Your task to perform on an android device: Is it going to rain tomorrow? Image 0: 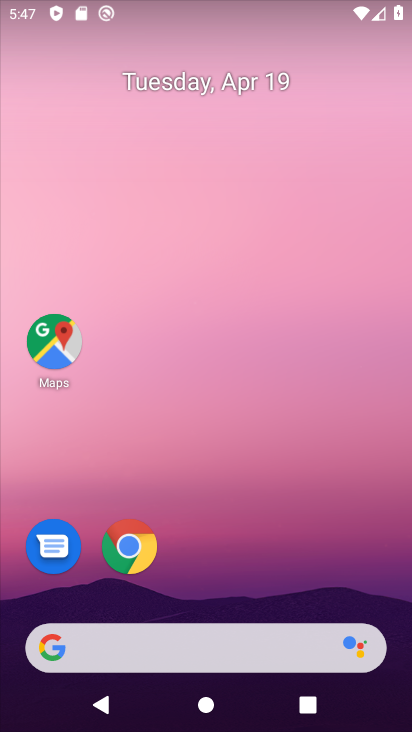
Step 0: drag from (256, 589) to (267, 80)
Your task to perform on an android device: Is it going to rain tomorrow? Image 1: 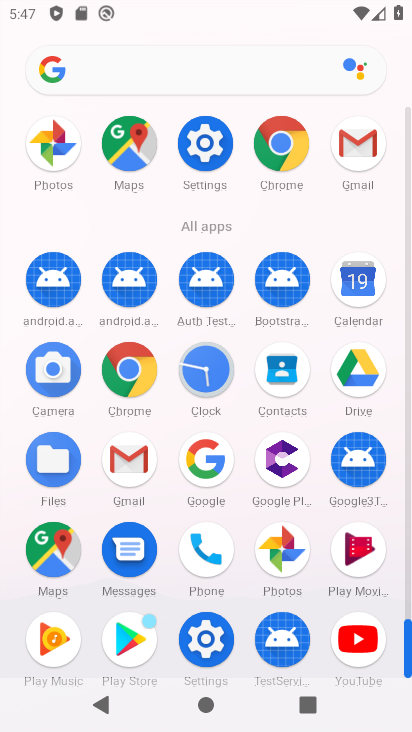
Step 1: click (138, 386)
Your task to perform on an android device: Is it going to rain tomorrow? Image 2: 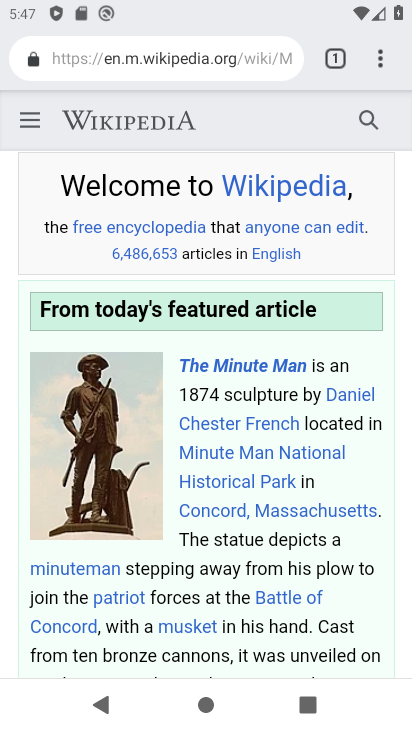
Step 2: click (218, 64)
Your task to perform on an android device: Is it going to rain tomorrow? Image 3: 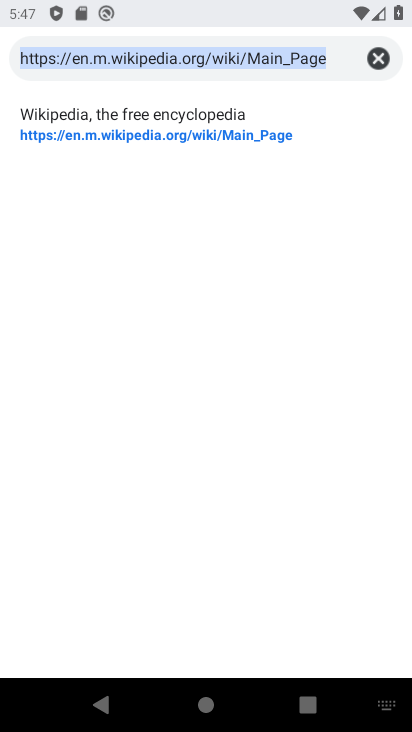
Step 3: type "weather"
Your task to perform on an android device: Is it going to rain tomorrow? Image 4: 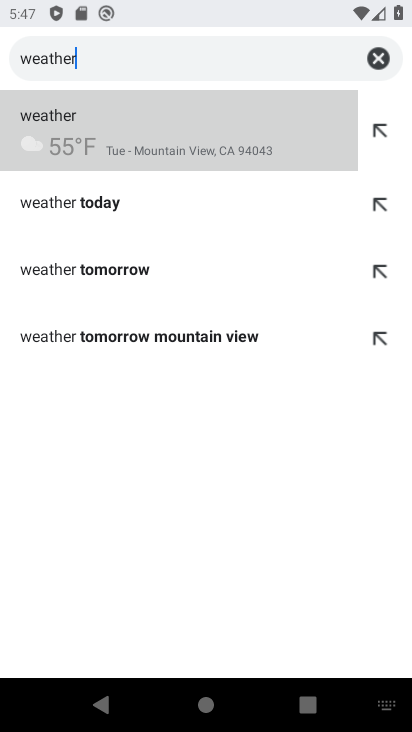
Step 4: click (248, 143)
Your task to perform on an android device: Is it going to rain tomorrow? Image 5: 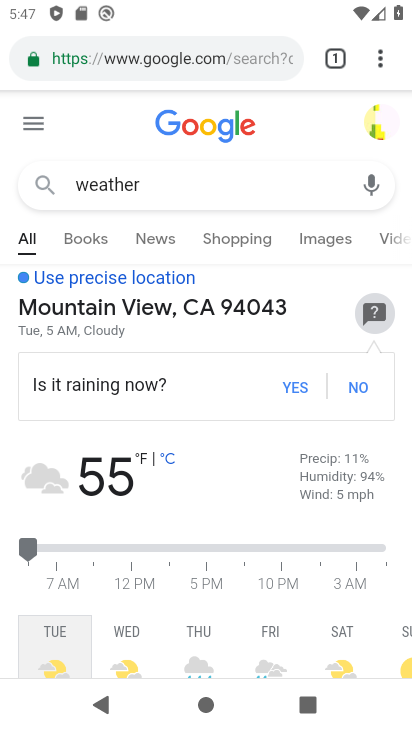
Step 5: click (133, 638)
Your task to perform on an android device: Is it going to rain tomorrow? Image 6: 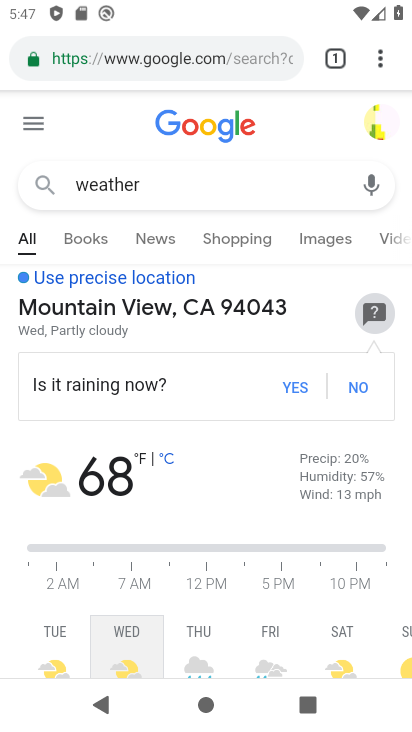
Step 6: task complete